Your task to perform on an android device: Show me the alarms in the clock app Image 0: 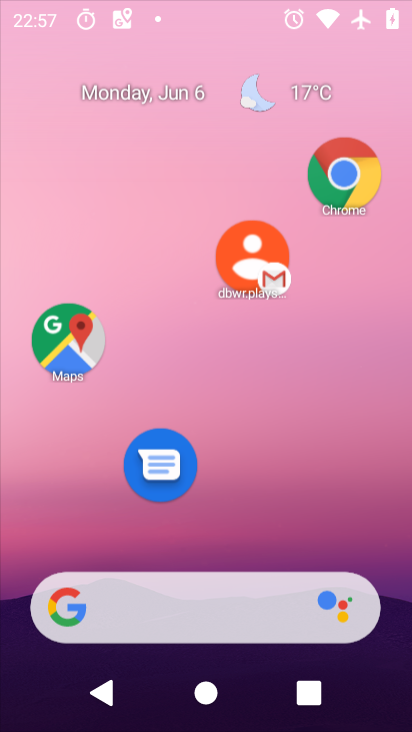
Step 0: drag from (290, 113) to (232, 62)
Your task to perform on an android device: Show me the alarms in the clock app Image 1: 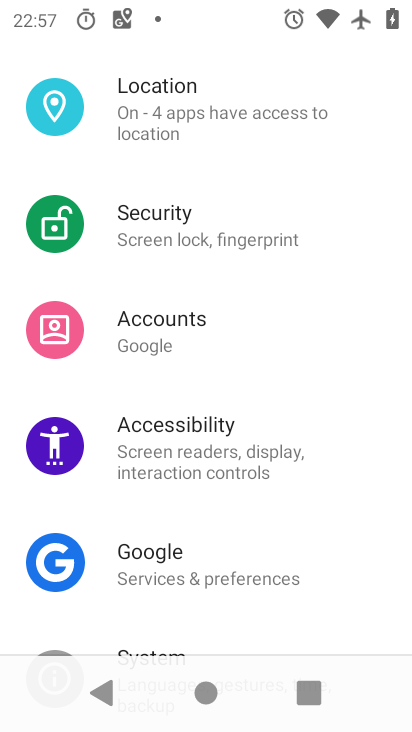
Step 1: press home button
Your task to perform on an android device: Show me the alarms in the clock app Image 2: 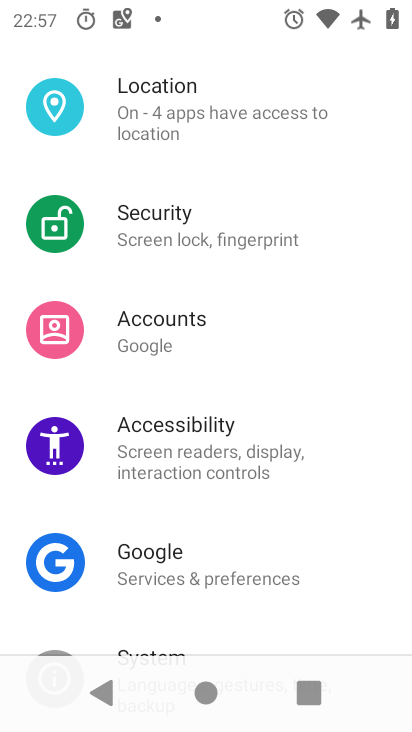
Step 2: drag from (331, 516) to (383, 66)
Your task to perform on an android device: Show me the alarms in the clock app Image 3: 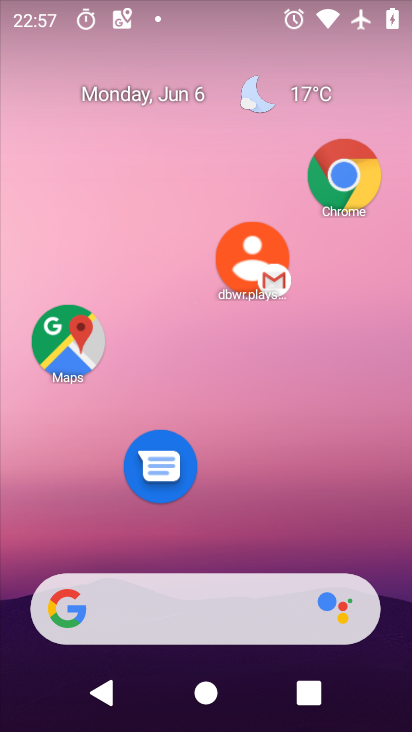
Step 3: drag from (250, 569) to (279, 46)
Your task to perform on an android device: Show me the alarms in the clock app Image 4: 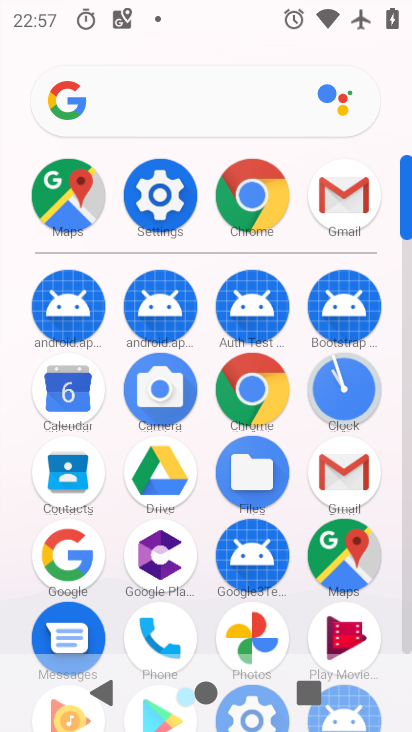
Step 4: click (332, 385)
Your task to perform on an android device: Show me the alarms in the clock app Image 5: 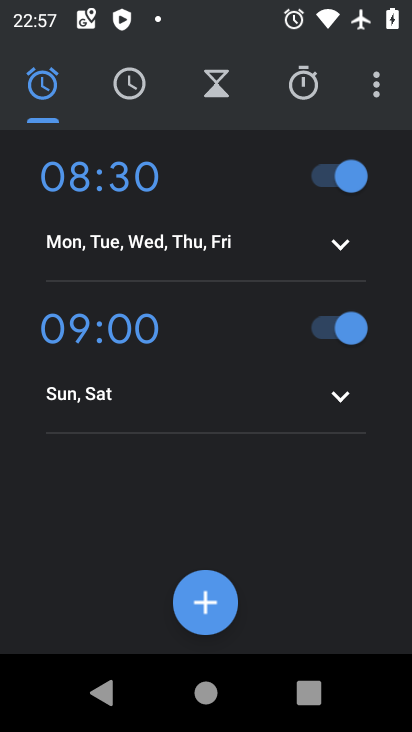
Step 5: task complete